Your task to perform on an android device: turn off notifications in google photos Image 0: 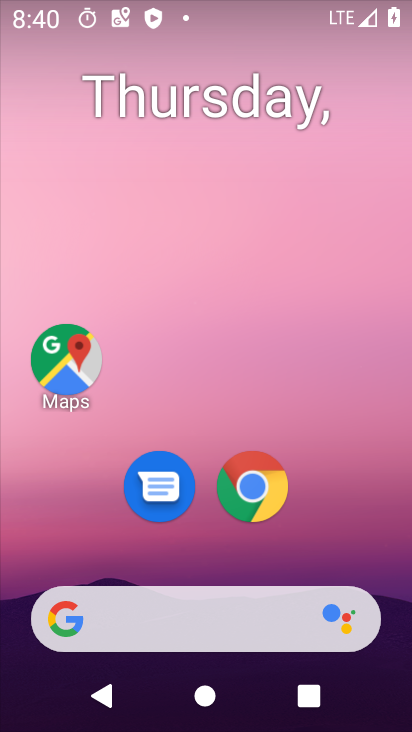
Step 0: drag from (187, 601) to (238, 156)
Your task to perform on an android device: turn off notifications in google photos Image 1: 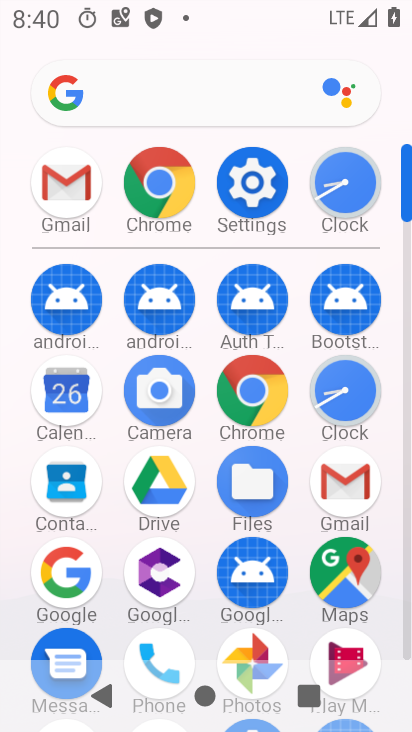
Step 1: drag from (210, 552) to (241, 254)
Your task to perform on an android device: turn off notifications in google photos Image 2: 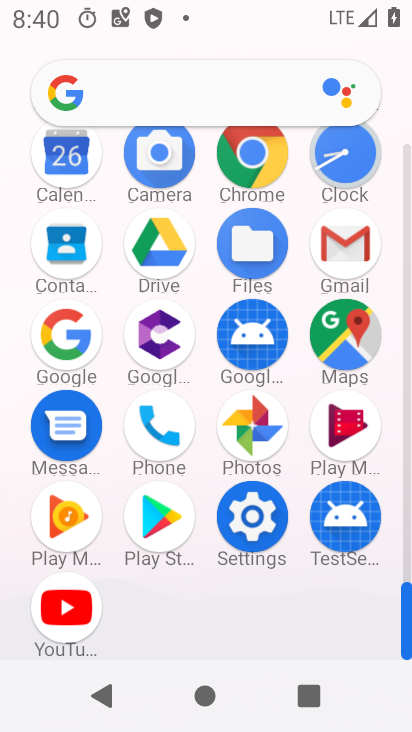
Step 2: click (245, 454)
Your task to perform on an android device: turn off notifications in google photos Image 3: 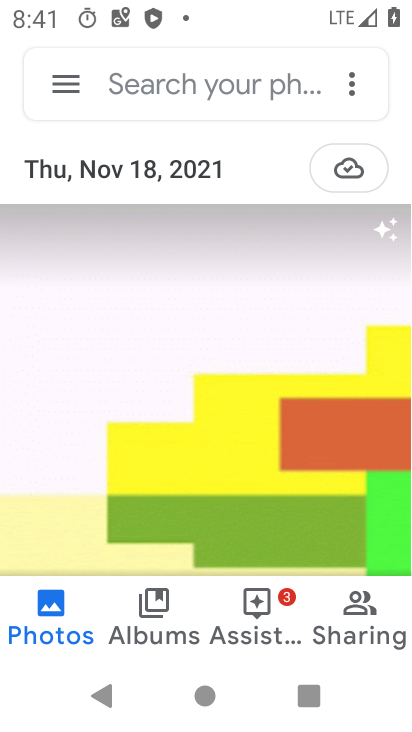
Step 3: click (66, 86)
Your task to perform on an android device: turn off notifications in google photos Image 4: 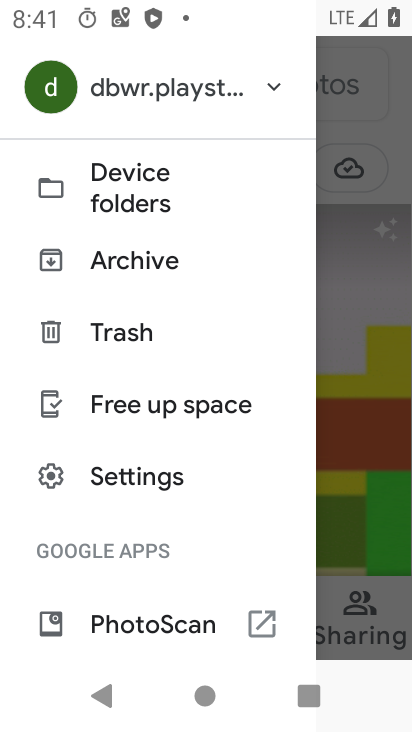
Step 4: click (110, 476)
Your task to perform on an android device: turn off notifications in google photos Image 5: 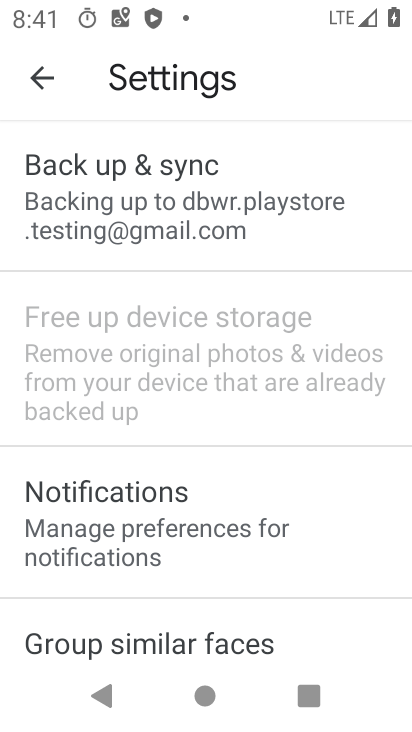
Step 5: click (162, 500)
Your task to perform on an android device: turn off notifications in google photos Image 6: 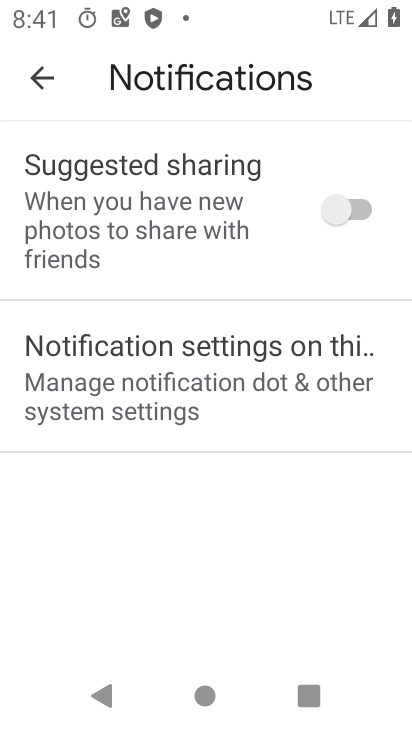
Step 6: click (164, 390)
Your task to perform on an android device: turn off notifications in google photos Image 7: 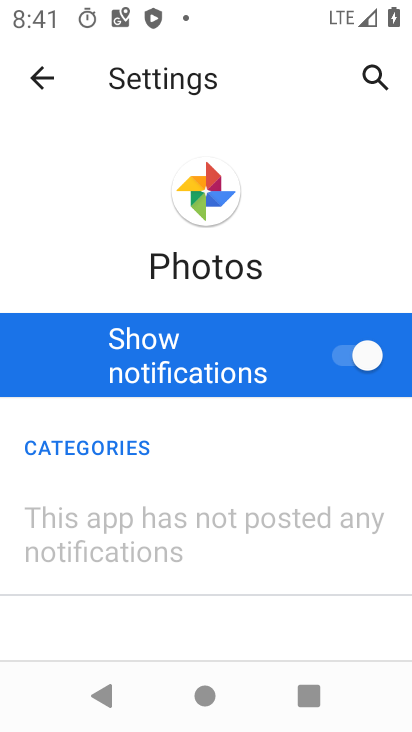
Step 7: click (317, 349)
Your task to perform on an android device: turn off notifications in google photos Image 8: 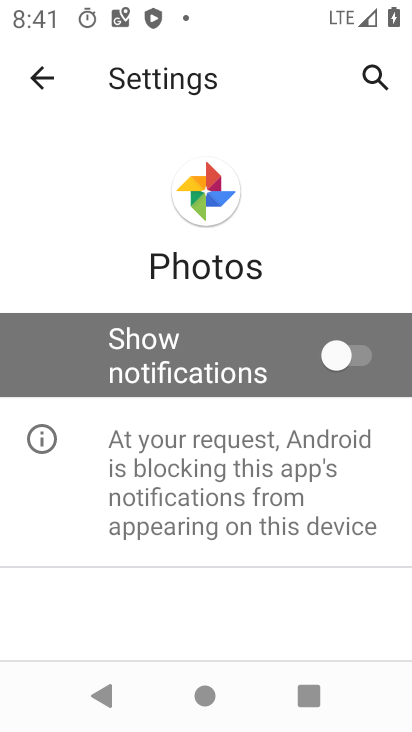
Step 8: task complete